Your task to perform on an android device: all mails in gmail Image 0: 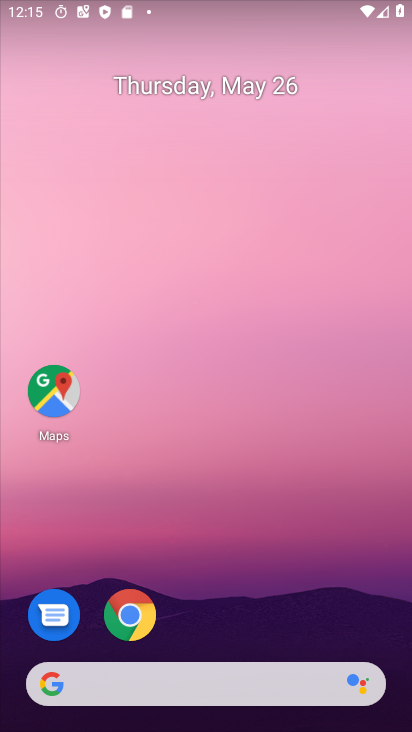
Step 0: drag from (271, 618) to (194, 305)
Your task to perform on an android device: all mails in gmail Image 1: 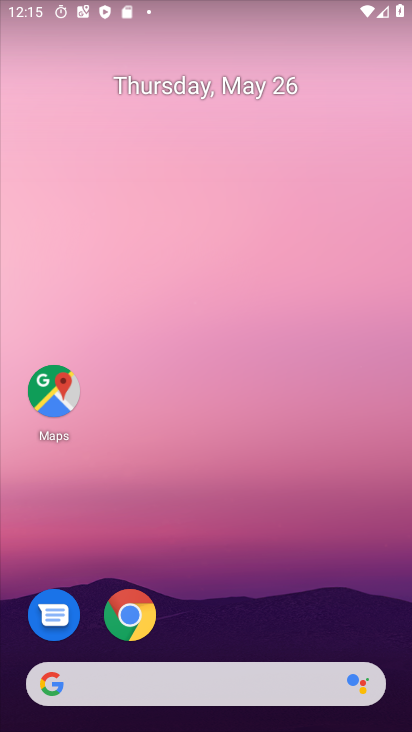
Step 1: drag from (233, 636) to (180, 254)
Your task to perform on an android device: all mails in gmail Image 2: 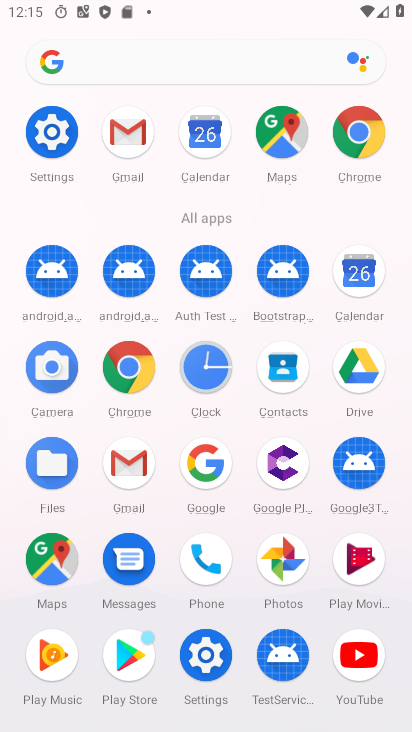
Step 2: click (123, 143)
Your task to perform on an android device: all mails in gmail Image 3: 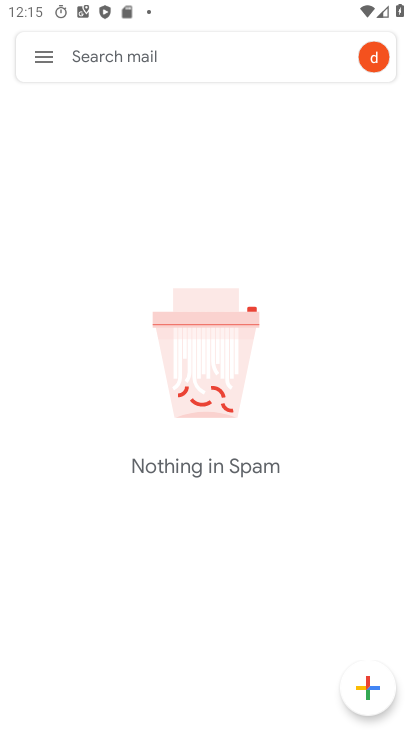
Step 3: click (45, 65)
Your task to perform on an android device: all mails in gmail Image 4: 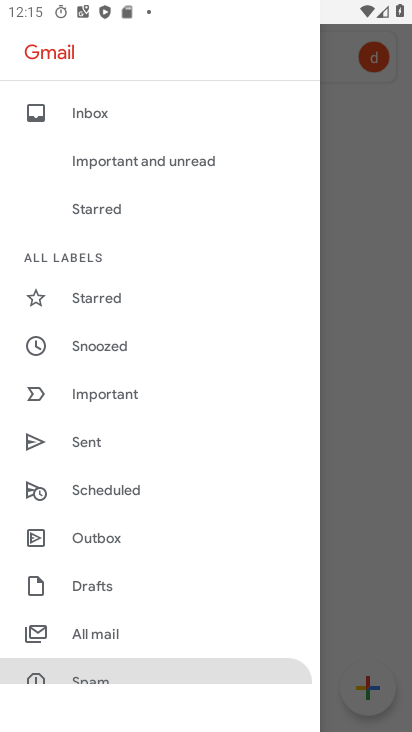
Step 4: click (122, 633)
Your task to perform on an android device: all mails in gmail Image 5: 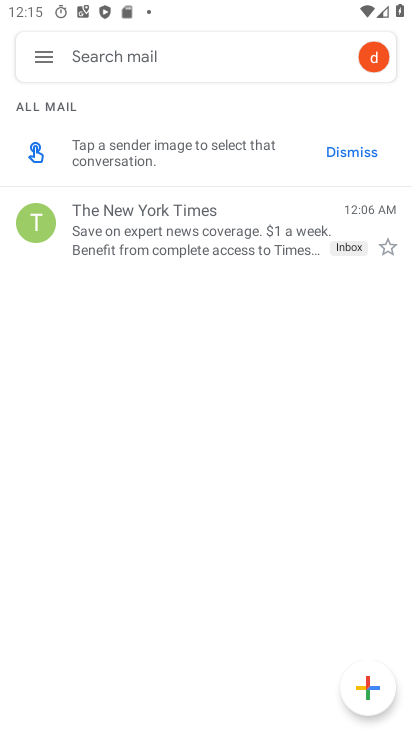
Step 5: task complete